Your task to perform on an android device: check google app version Image 0: 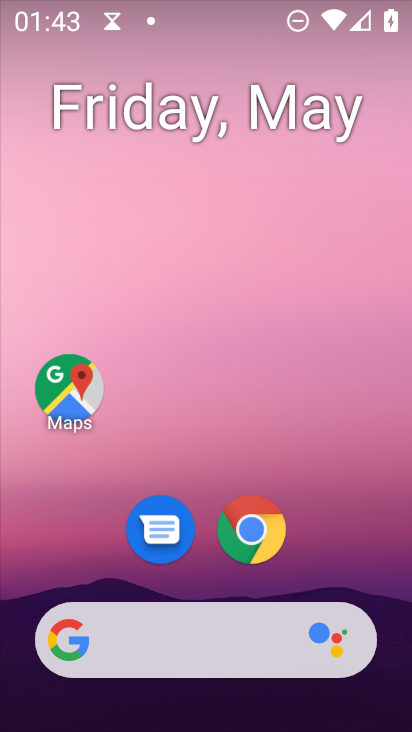
Step 0: drag from (333, 545) to (294, 205)
Your task to perform on an android device: check google app version Image 1: 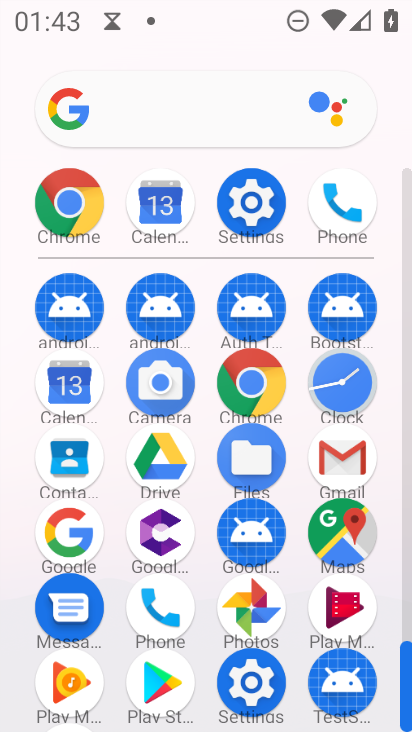
Step 1: click (82, 528)
Your task to perform on an android device: check google app version Image 2: 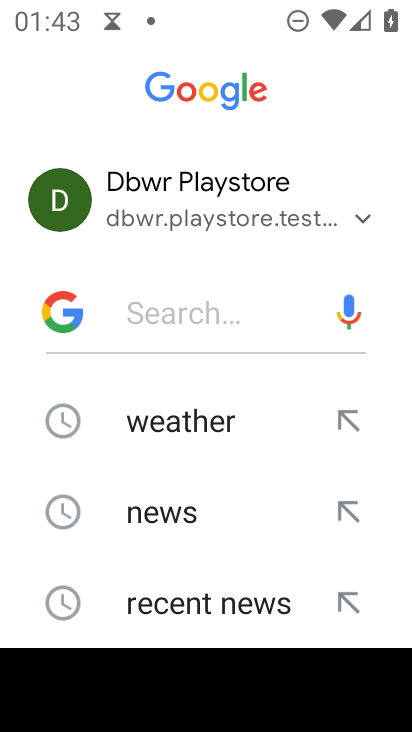
Step 2: click (379, 209)
Your task to perform on an android device: check google app version Image 3: 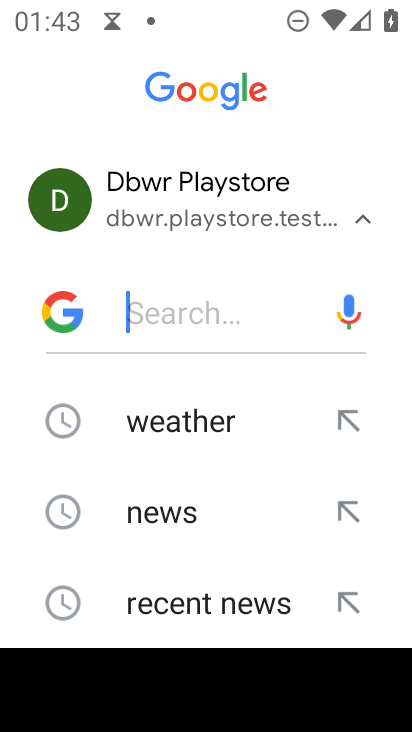
Step 3: click (354, 217)
Your task to perform on an android device: check google app version Image 4: 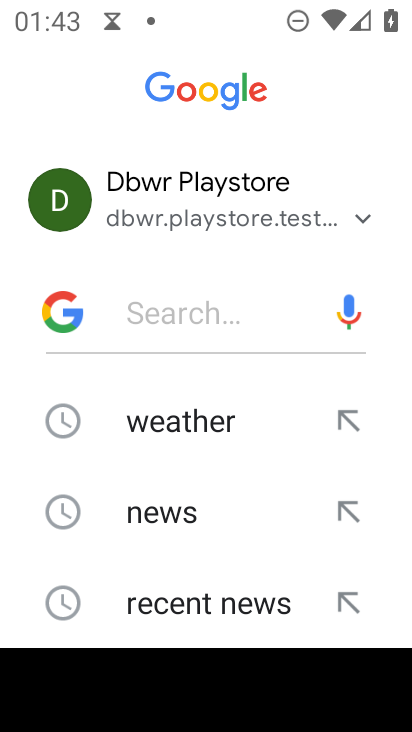
Step 4: drag from (233, 488) to (270, 69)
Your task to perform on an android device: check google app version Image 5: 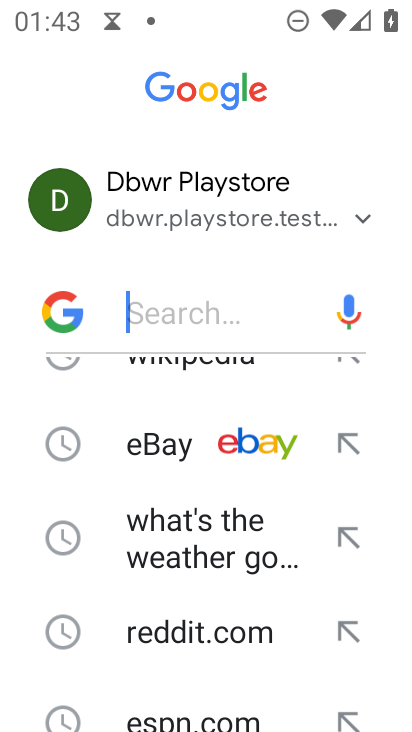
Step 5: drag from (201, 619) to (230, 391)
Your task to perform on an android device: check google app version Image 6: 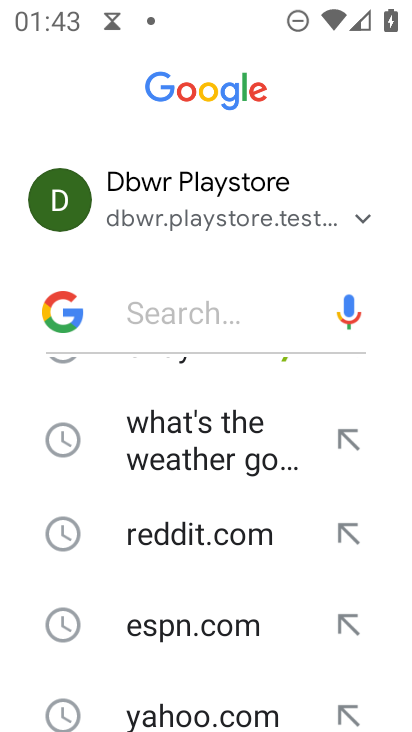
Step 6: click (53, 203)
Your task to perform on an android device: check google app version Image 7: 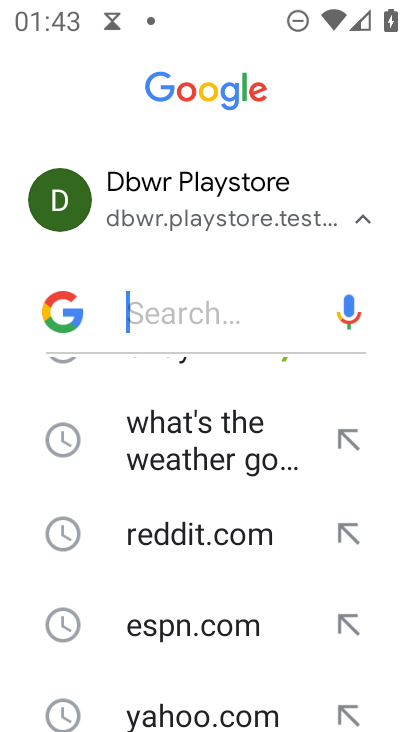
Step 7: click (71, 323)
Your task to perform on an android device: check google app version Image 8: 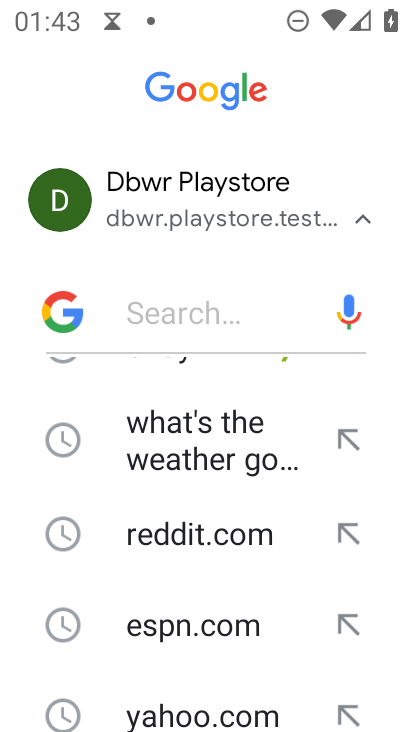
Step 8: click (71, 320)
Your task to perform on an android device: check google app version Image 9: 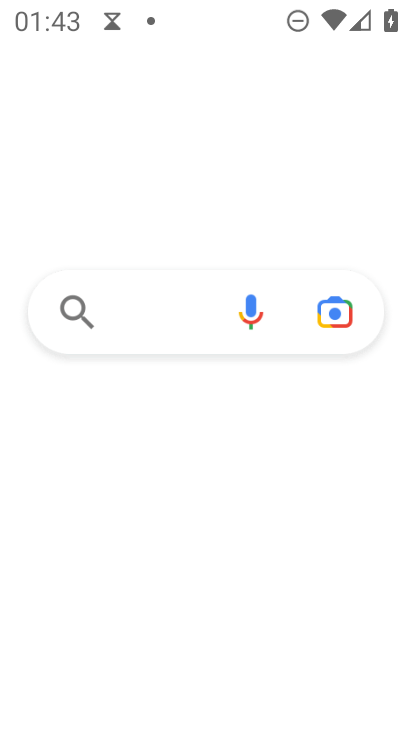
Step 9: click (71, 320)
Your task to perform on an android device: check google app version Image 10: 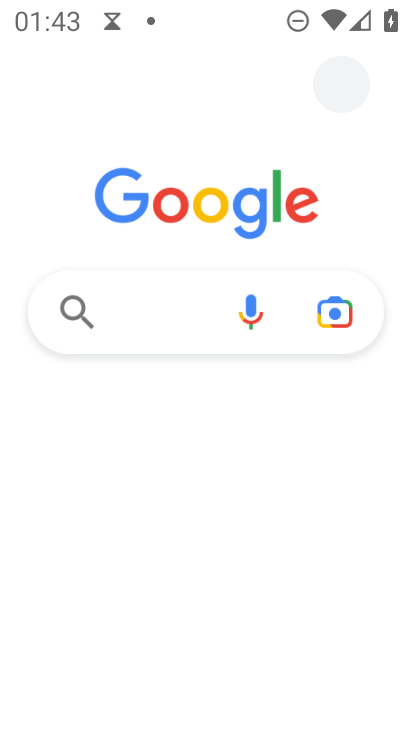
Step 10: click (71, 320)
Your task to perform on an android device: check google app version Image 11: 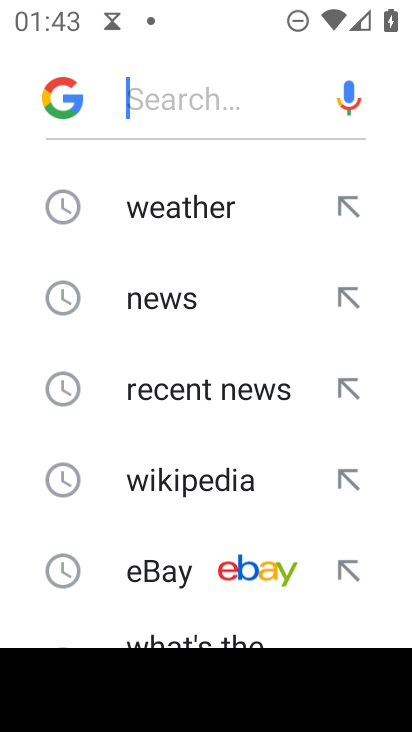
Step 11: press back button
Your task to perform on an android device: check google app version Image 12: 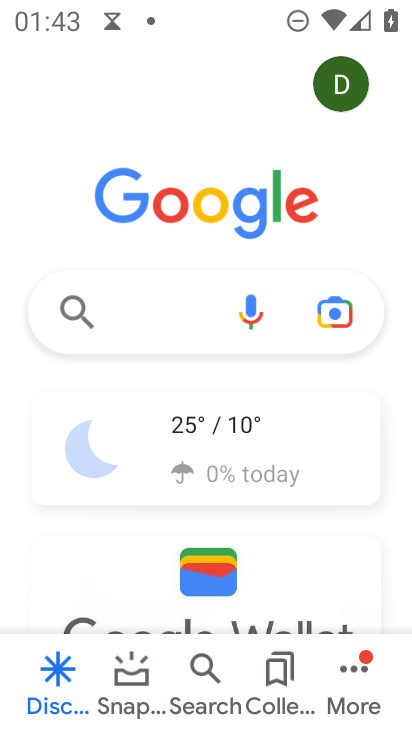
Step 12: click (352, 660)
Your task to perform on an android device: check google app version Image 13: 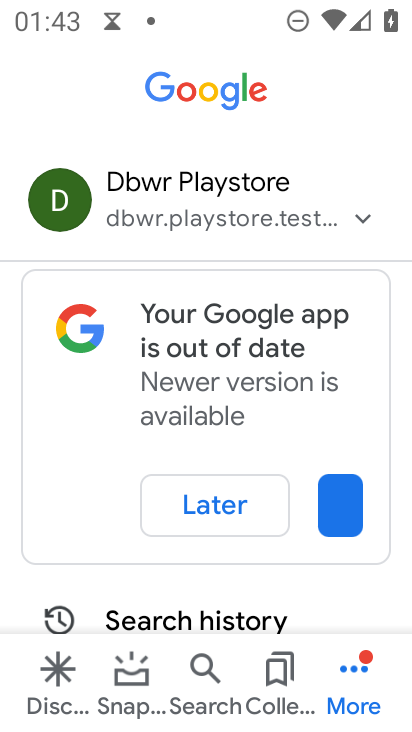
Step 13: drag from (112, 596) to (133, 134)
Your task to perform on an android device: check google app version Image 14: 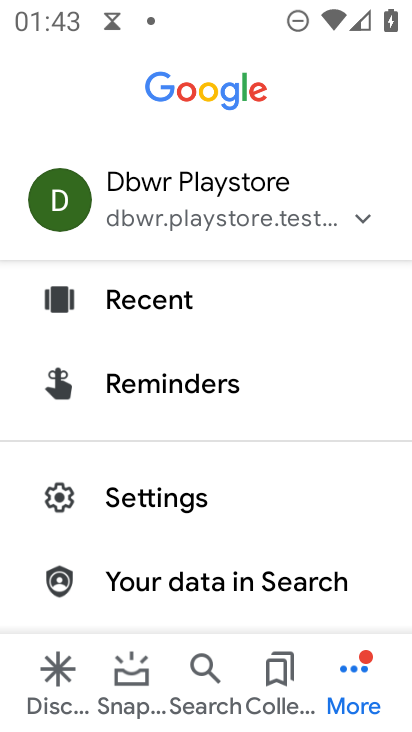
Step 14: click (78, 492)
Your task to perform on an android device: check google app version Image 15: 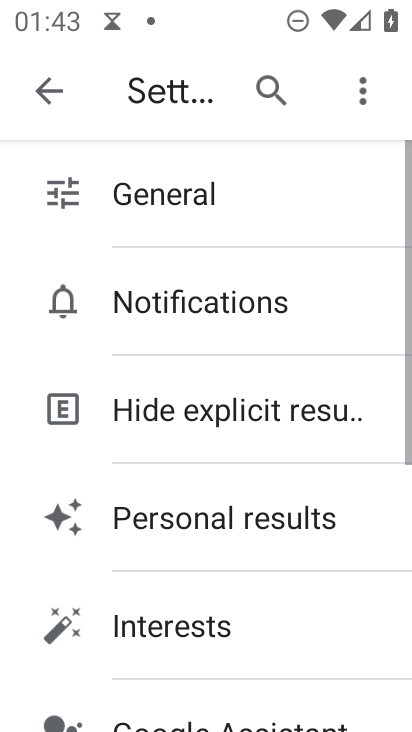
Step 15: drag from (213, 597) to (280, 181)
Your task to perform on an android device: check google app version Image 16: 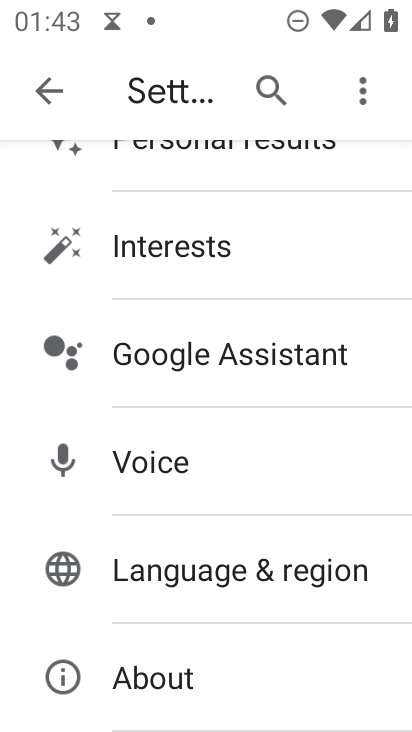
Step 16: click (167, 653)
Your task to perform on an android device: check google app version Image 17: 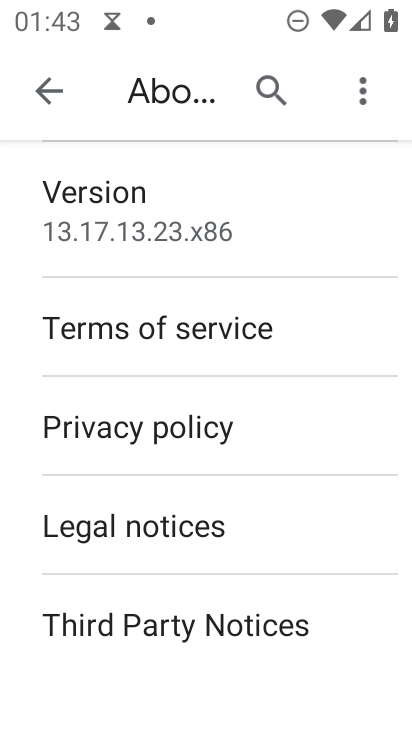
Step 17: task complete